Your task to perform on an android device: open a new tab in the chrome app Image 0: 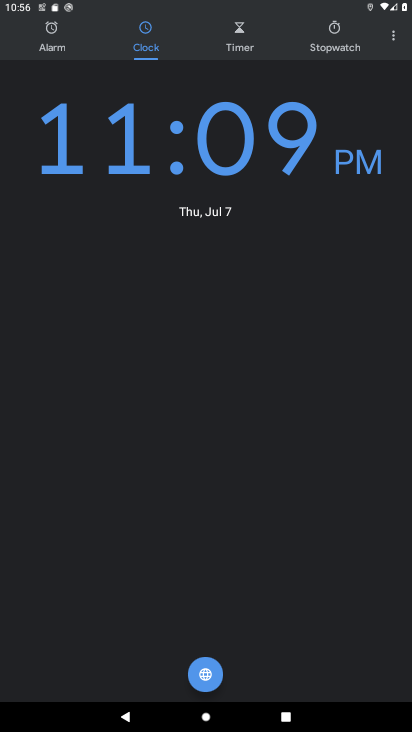
Step 0: press home button
Your task to perform on an android device: open a new tab in the chrome app Image 1: 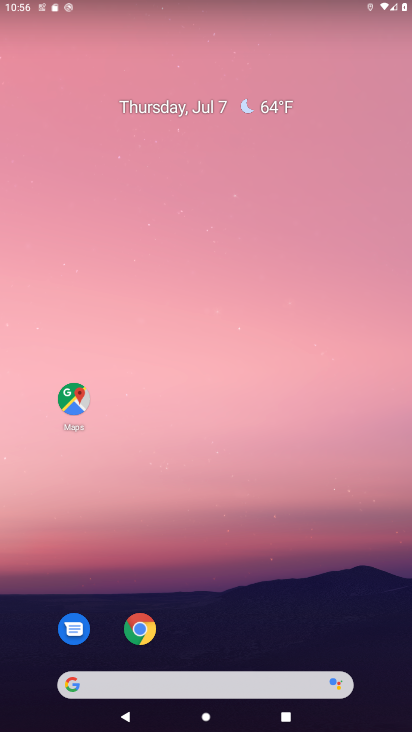
Step 1: click (141, 628)
Your task to perform on an android device: open a new tab in the chrome app Image 2: 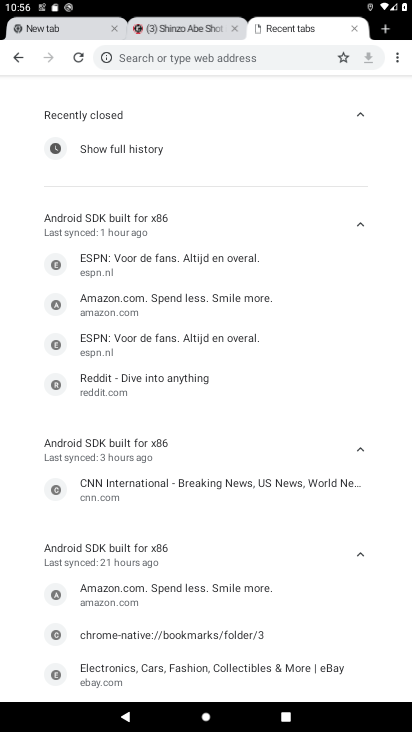
Step 2: click (398, 60)
Your task to perform on an android device: open a new tab in the chrome app Image 3: 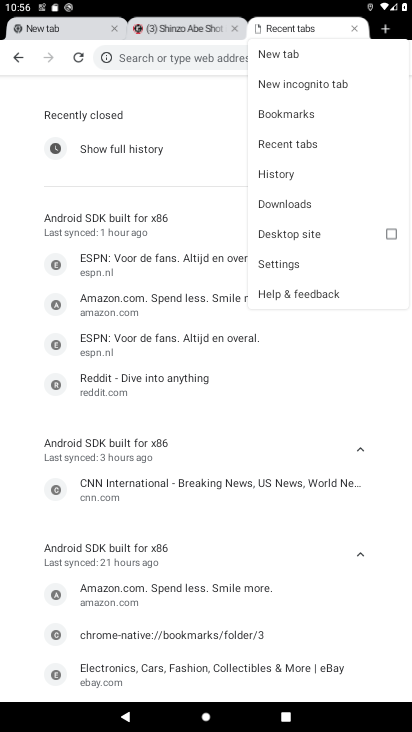
Step 3: click (290, 56)
Your task to perform on an android device: open a new tab in the chrome app Image 4: 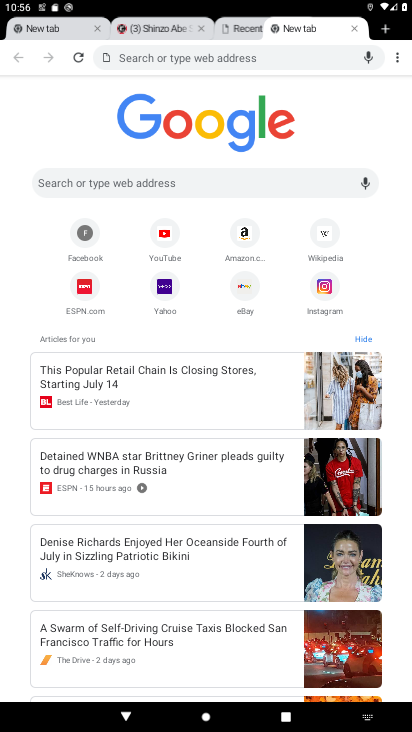
Step 4: task complete